Your task to perform on an android device: Open eBay Image 0: 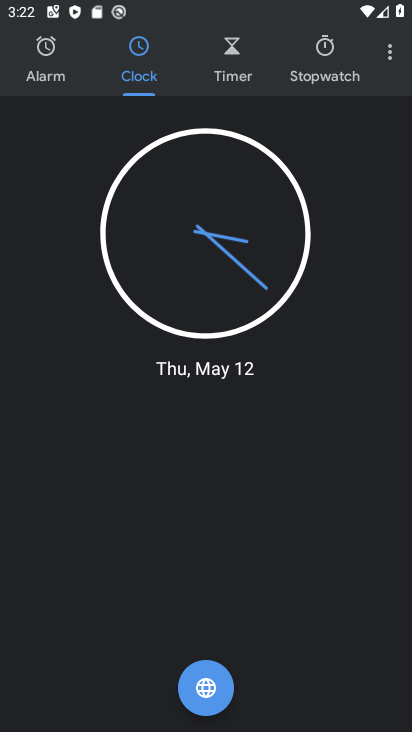
Step 0: press home button
Your task to perform on an android device: Open eBay Image 1: 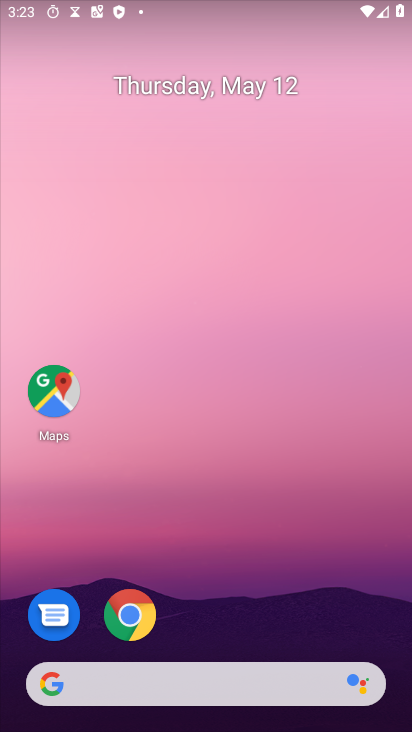
Step 1: click (144, 604)
Your task to perform on an android device: Open eBay Image 2: 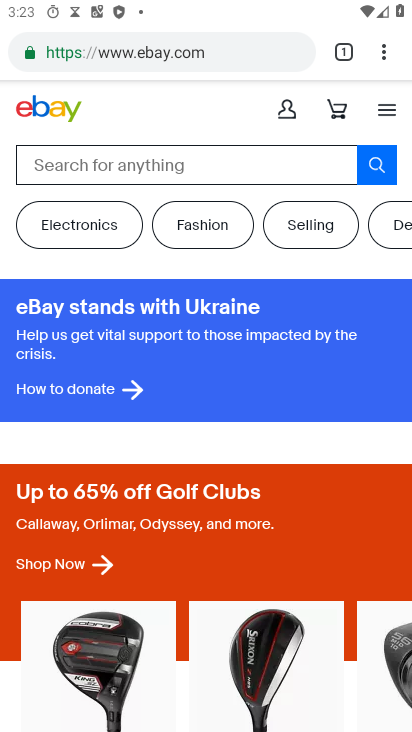
Step 2: task complete